Your task to perform on an android device: turn off improve location accuracy Image 0: 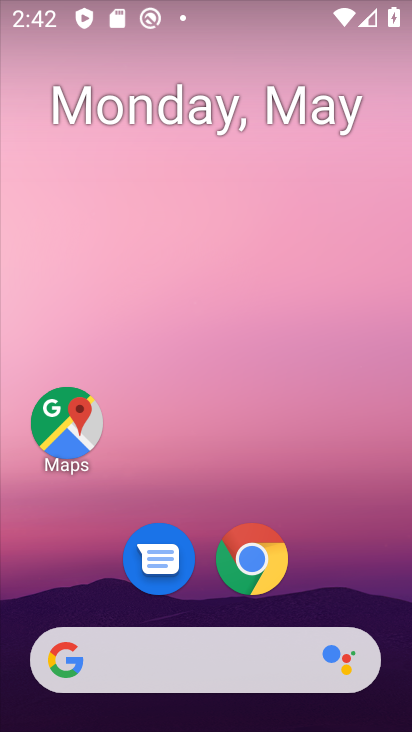
Step 0: drag from (326, 497) to (234, 84)
Your task to perform on an android device: turn off improve location accuracy Image 1: 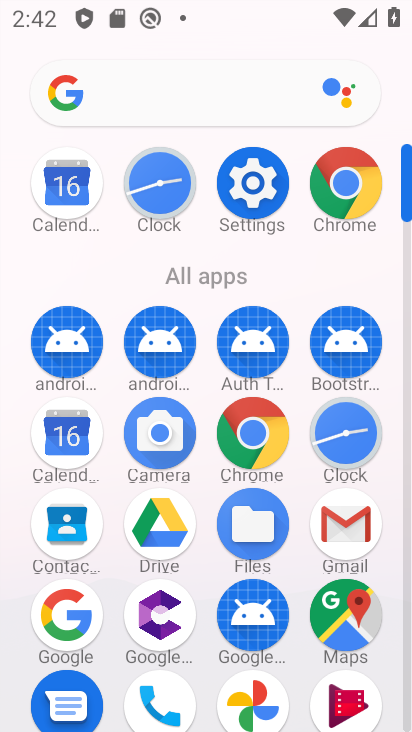
Step 1: drag from (7, 629) to (4, 271)
Your task to perform on an android device: turn off improve location accuracy Image 2: 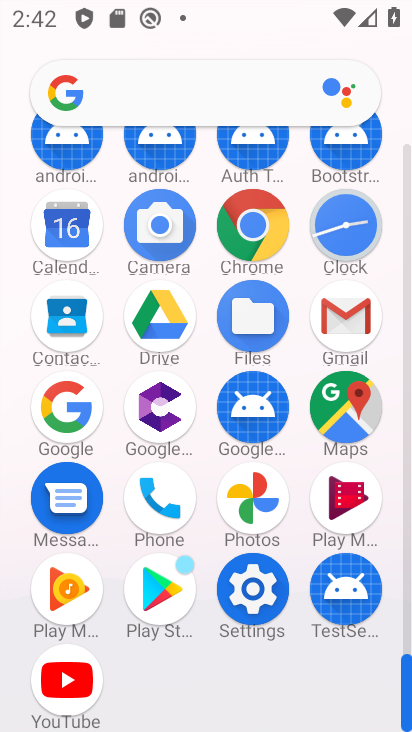
Step 2: click (255, 588)
Your task to perform on an android device: turn off improve location accuracy Image 3: 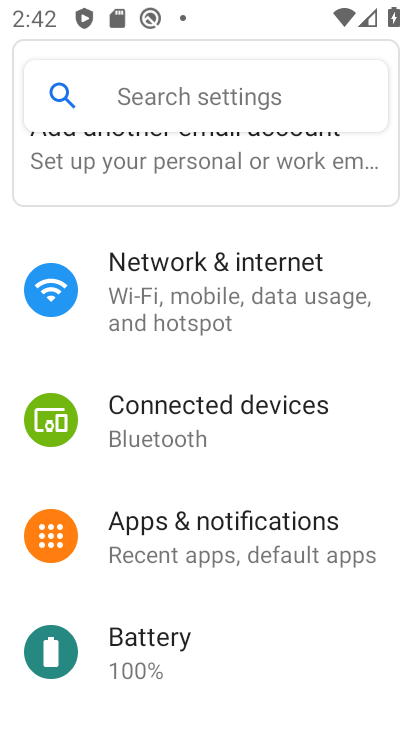
Step 3: drag from (316, 483) to (314, 244)
Your task to perform on an android device: turn off improve location accuracy Image 4: 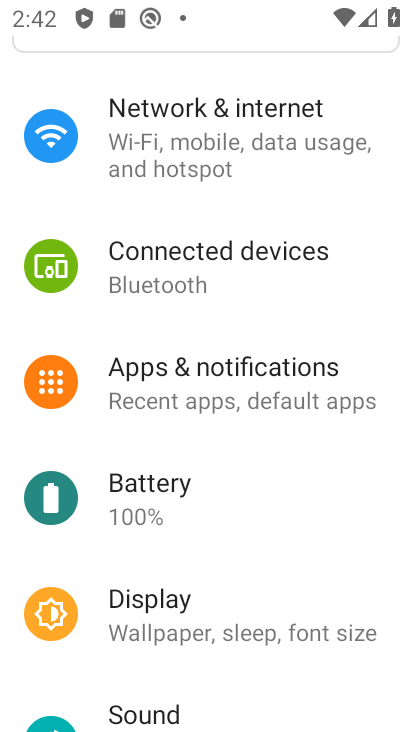
Step 4: drag from (350, 601) to (325, 158)
Your task to perform on an android device: turn off improve location accuracy Image 5: 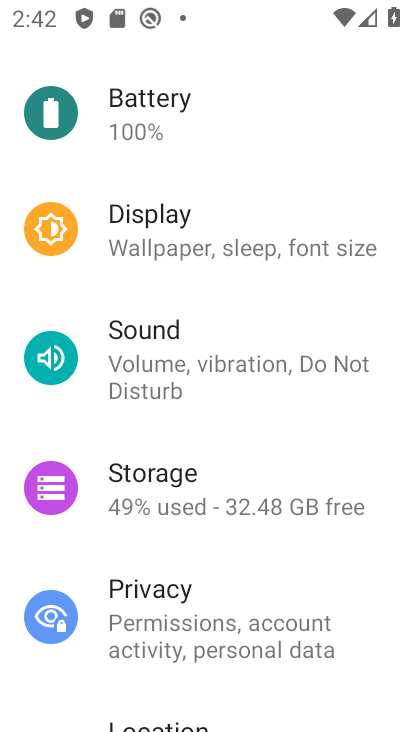
Step 5: drag from (300, 523) to (298, 201)
Your task to perform on an android device: turn off improve location accuracy Image 6: 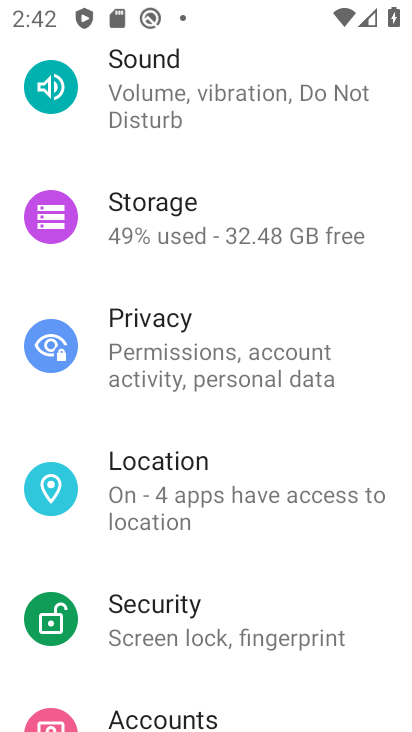
Step 6: click (255, 481)
Your task to perform on an android device: turn off improve location accuracy Image 7: 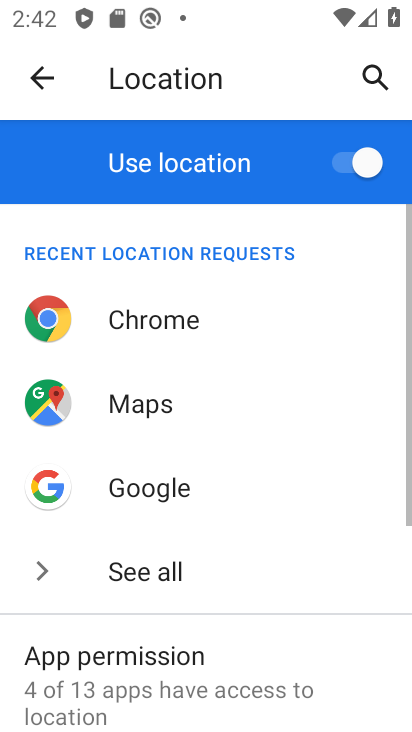
Step 7: click (360, 158)
Your task to perform on an android device: turn off improve location accuracy Image 8: 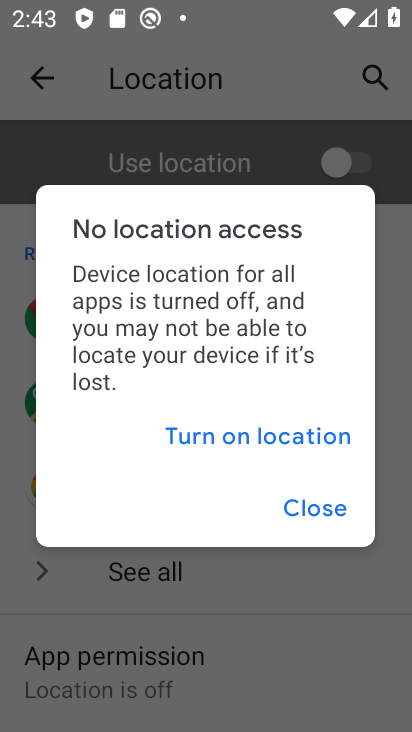
Step 8: click (285, 425)
Your task to perform on an android device: turn off improve location accuracy Image 9: 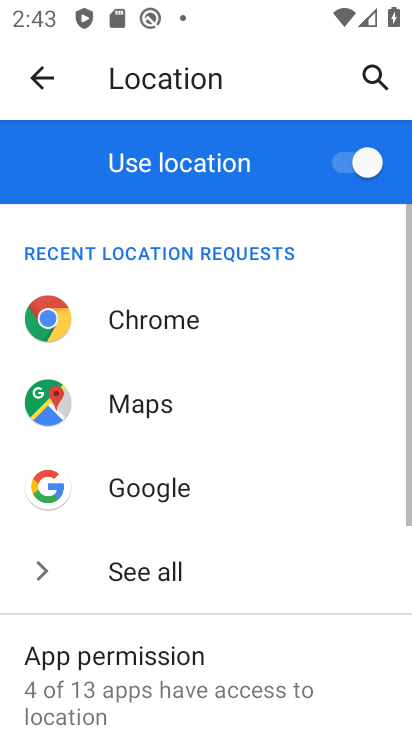
Step 9: drag from (267, 594) to (249, 193)
Your task to perform on an android device: turn off improve location accuracy Image 10: 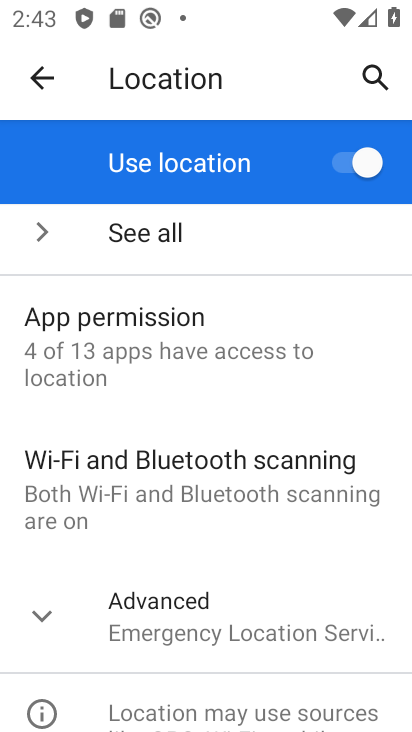
Step 10: click (79, 619)
Your task to perform on an android device: turn off improve location accuracy Image 11: 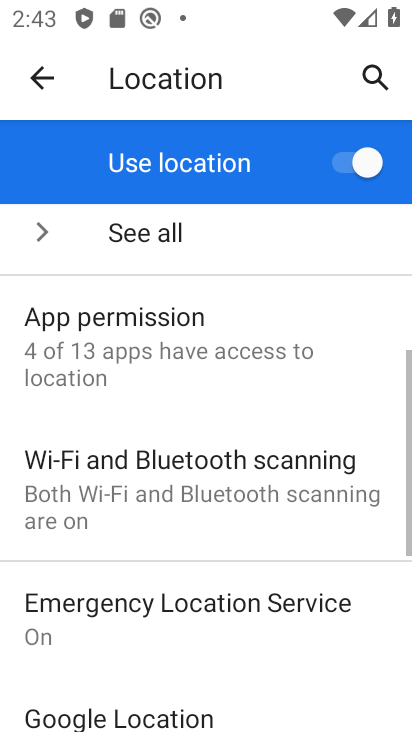
Step 11: drag from (243, 598) to (236, 277)
Your task to perform on an android device: turn off improve location accuracy Image 12: 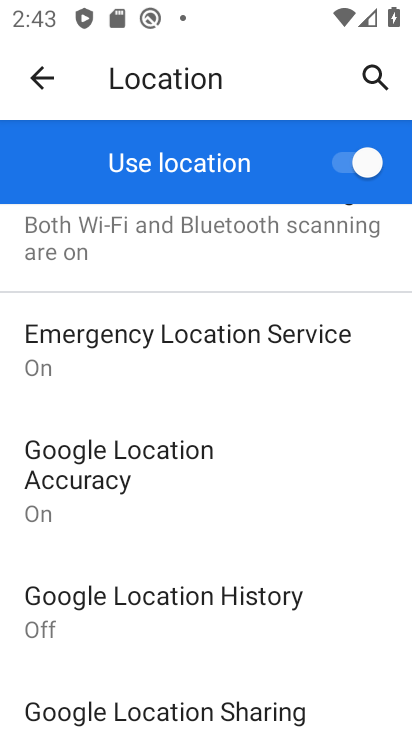
Step 12: click (155, 456)
Your task to perform on an android device: turn off improve location accuracy Image 13: 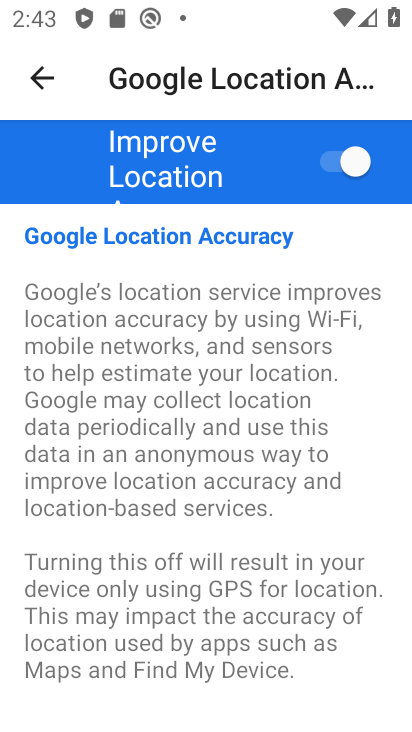
Step 13: click (354, 147)
Your task to perform on an android device: turn off improve location accuracy Image 14: 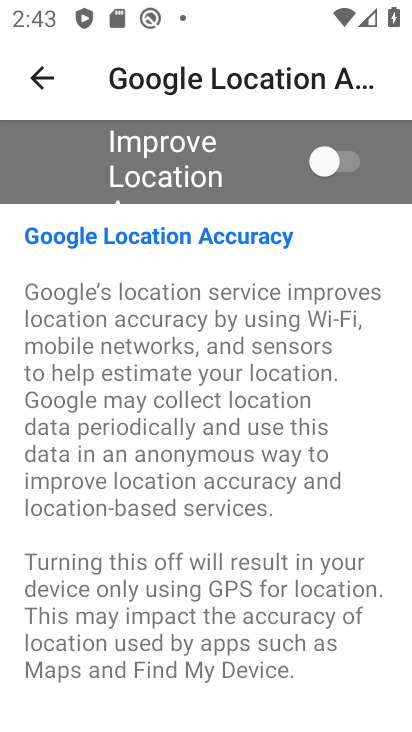
Step 14: task complete